Your task to perform on an android device: toggle sleep mode Image 0: 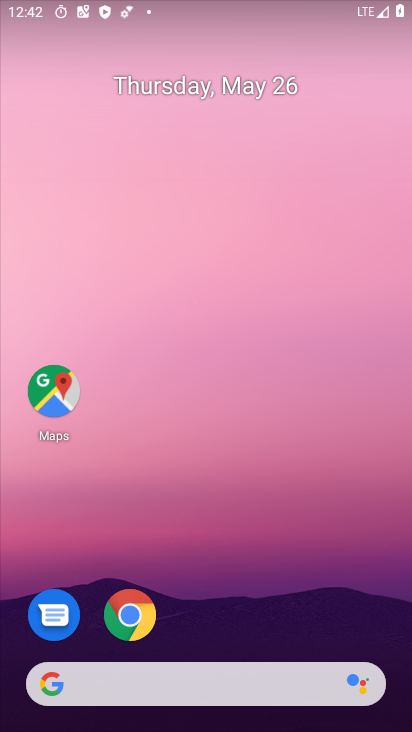
Step 0: drag from (215, 633) to (197, 100)
Your task to perform on an android device: toggle sleep mode Image 1: 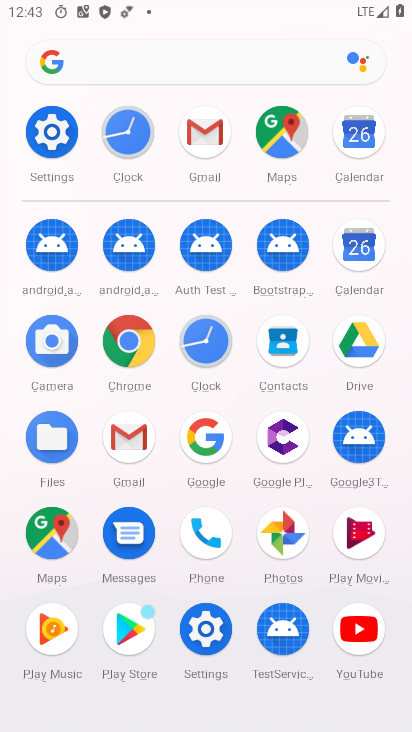
Step 1: click (48, 125)
Your task to perform on an android device: toggle sleep mode Image 2: 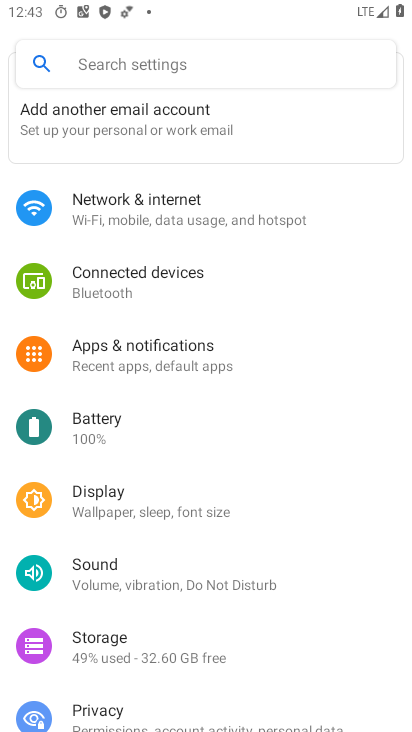
Step 2: click (168, 505)
Your task to perform on an android device: toggle sleep mode Image 3: 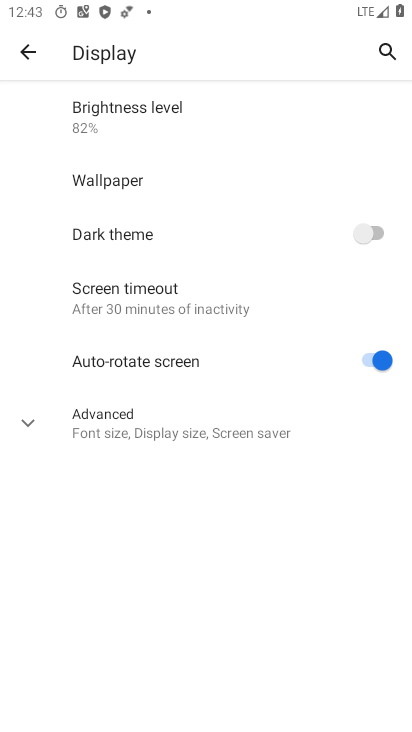
Step 3: click (321, 425)
Your task to perform on an android device: toggle sleep mode Image 4: 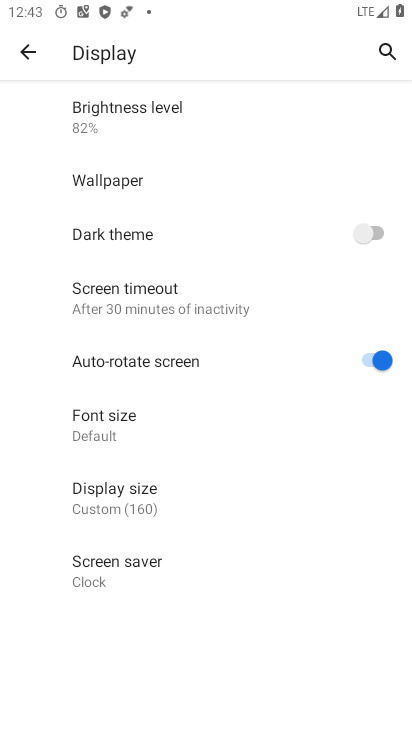
Step 4: task complete